Your task to perform on an android device: What's the weather going to be this weekend? Image 0: 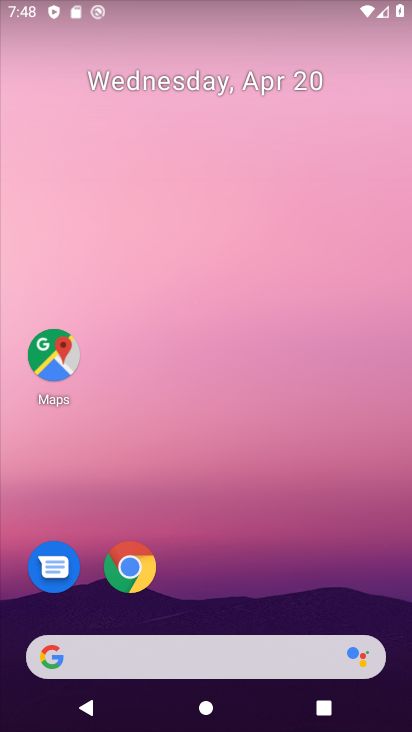
Step 0: drag from (26, 172) to (396, 190)
Your task to perform on an android device: What's the weather going to be this weekend? Image 1: 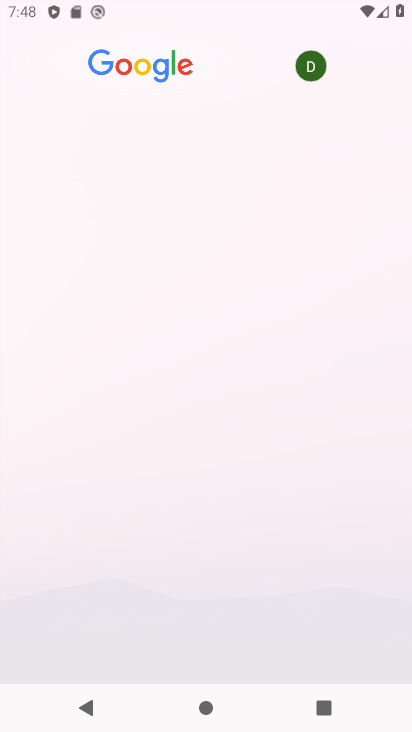
Step 1: drag from (135, 225) to (312, 213)
Your task to perform on an android device: What's the weather going to be this weekend? Image 2: 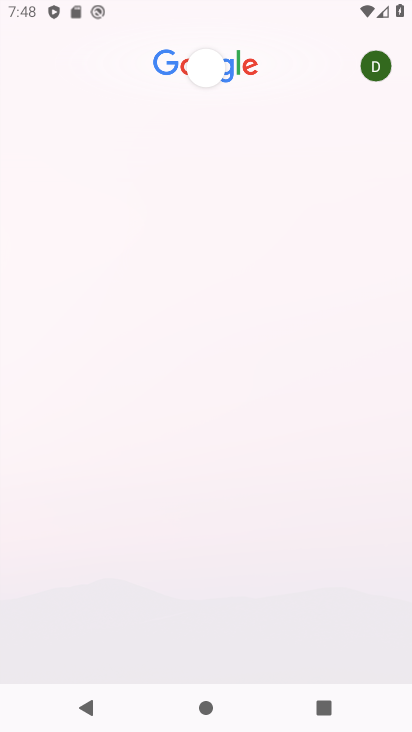
Step 2: drag from (287, 227) to (285, 488)
Your task to perform on an android device: What's the weather going to be this weekend? Image 3: 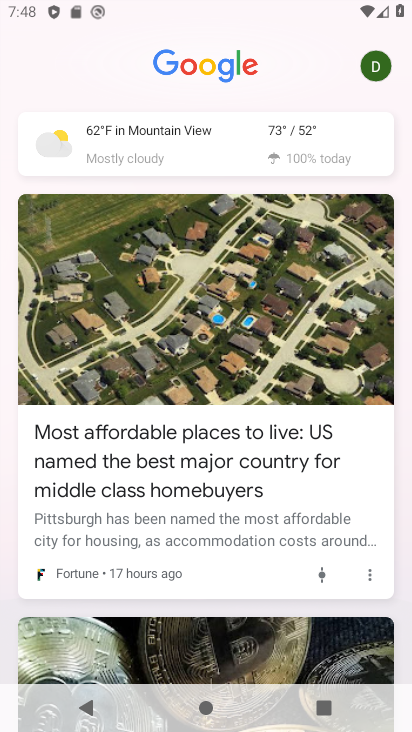
Step 3: click (175, 129)
Your task to perform on an android device: What's the weather going to be this weekend? Image 4: 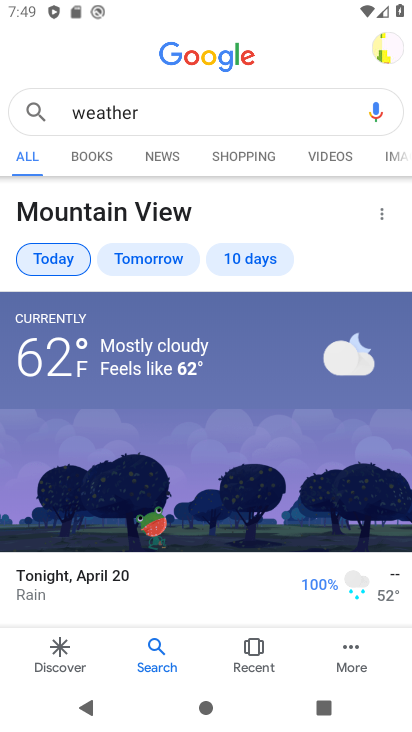
Step 4: click (249, 252)
Your task to perform on an android device: What's the weather going to be this weekend? Image 5: 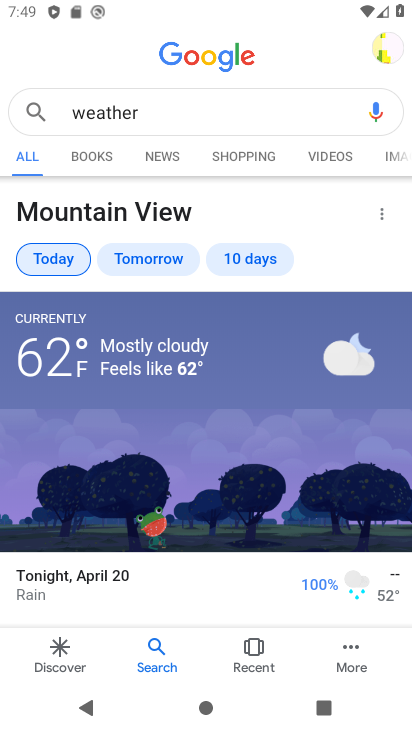
Step 5: drag from (252, 374) to (252, 228)
Your task to perform on an android device: What's the weather going to be this weekend? Image 6: 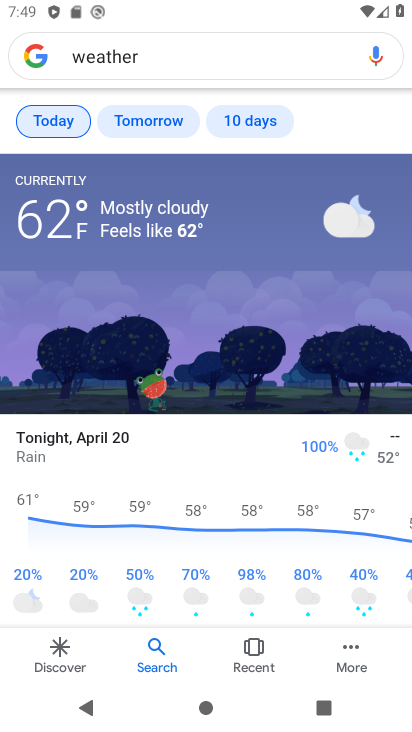
Step 6: click (250, 126)
Your task to perform on an android device: What's the weather going to be this weekend? Image 7: 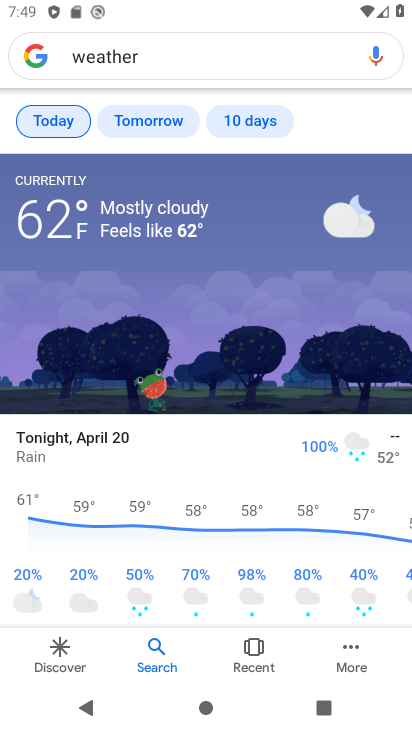
Step 7: drag from (260, 467) to (240, 152)
Your task to perform on an android device: What's the weather going to be this weekend? Image 8: 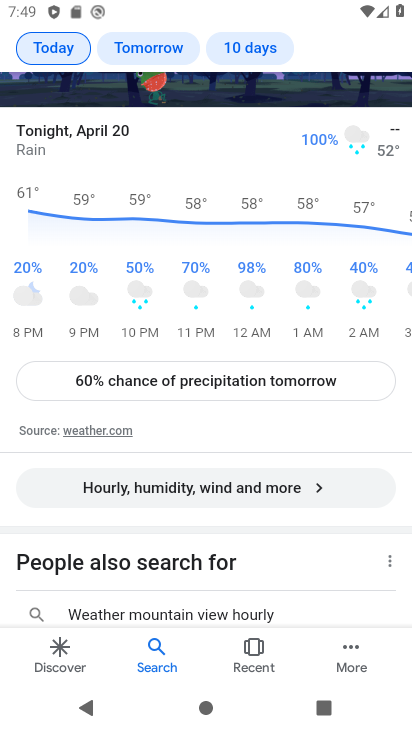
Step 8: drag from (231, 485) to (231, 208)
Your task to perform on an android device: What's the weather going to be this weekend? Image 9: 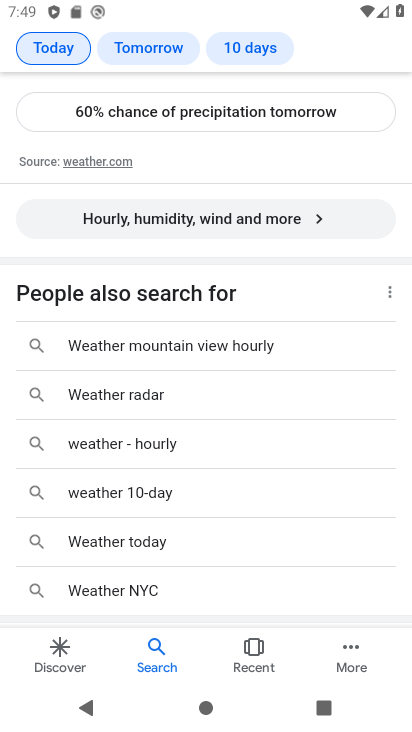
Step 9: click (127, 492)
Your task to perform on an android device: What's the weather going to be this weekend? Image 10: 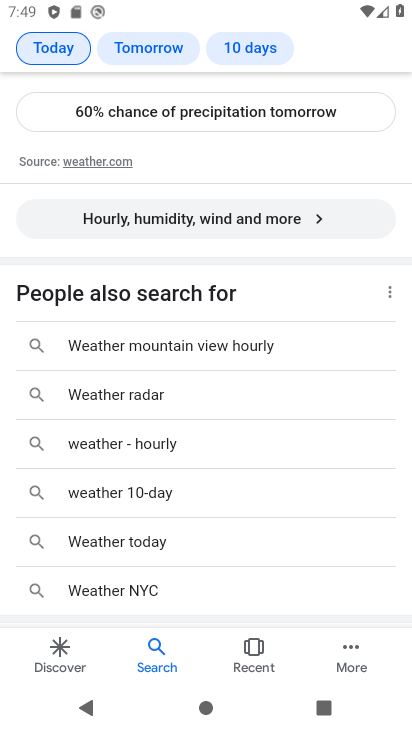
Step 10: click (87, 493)
Your task to perform on an android device: What's the weather going to be this weekend? Image 11: 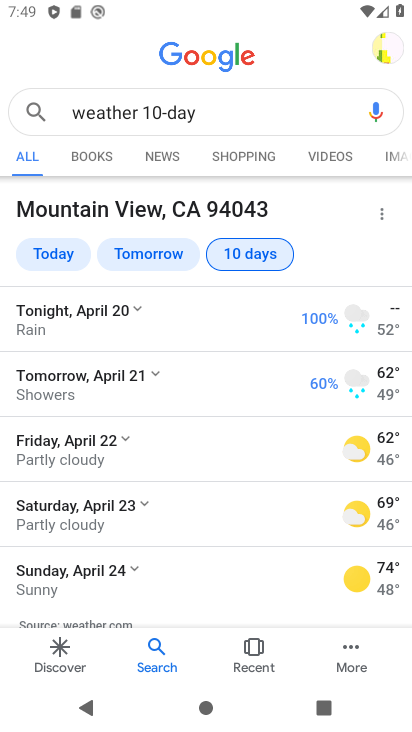
Step 11: task complete